Your task to perform on an android device: turn pop-ups off in chrome Image 0: 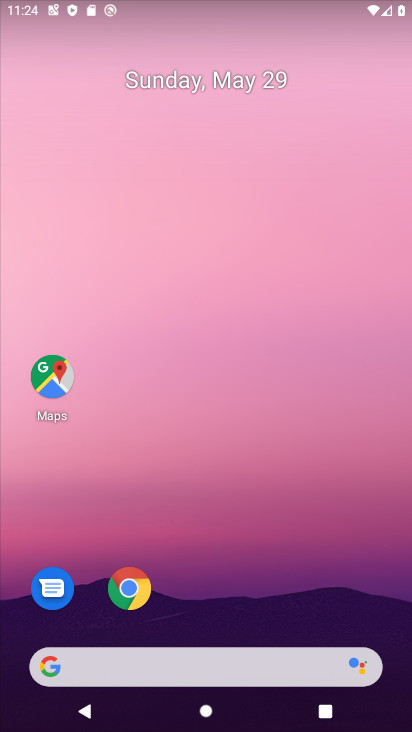
Step 0: drag from (333, 613) to (412, 148)
Your task to perform on an android device: turn pop-ups off in chrome Image 1: 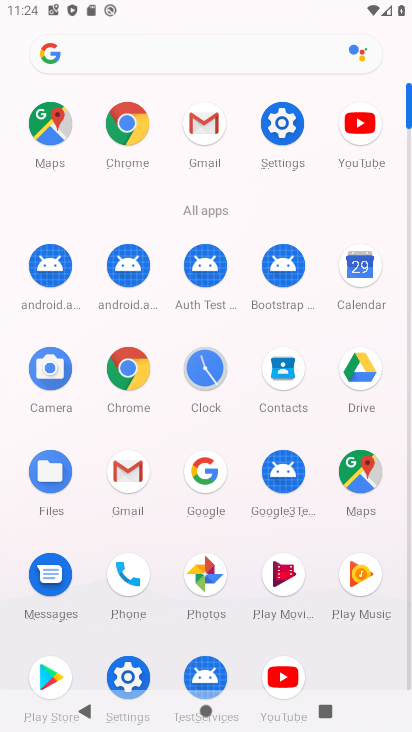
Step 1: click (132, 131)
Your task to perform on an android device: turn pop-ups off in chrome Image 2: 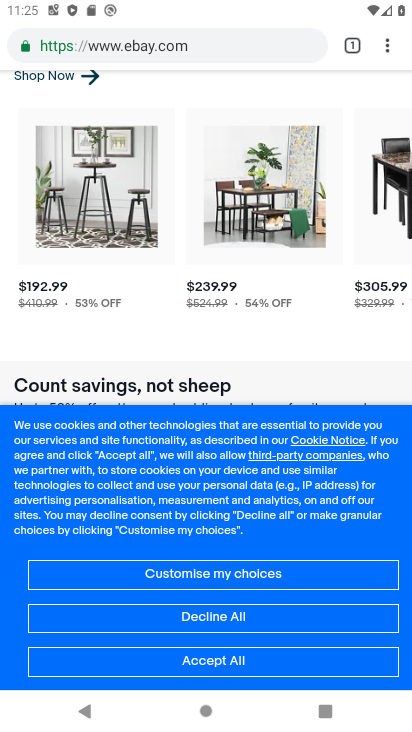
Step 2: drag from (387, 50) to (227, 551)
Your task to perform on an android device: turn pop-ups off in chrome Image 3: 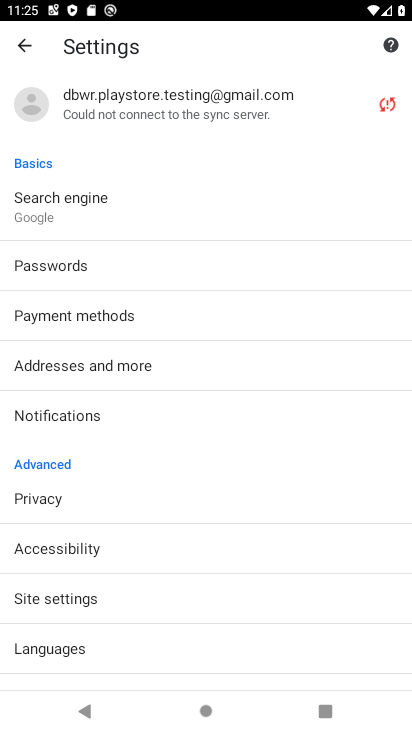
Step 3: click (110, 602)
Your task to perform on an android device: turn pop-ups off in chrome Image 4: 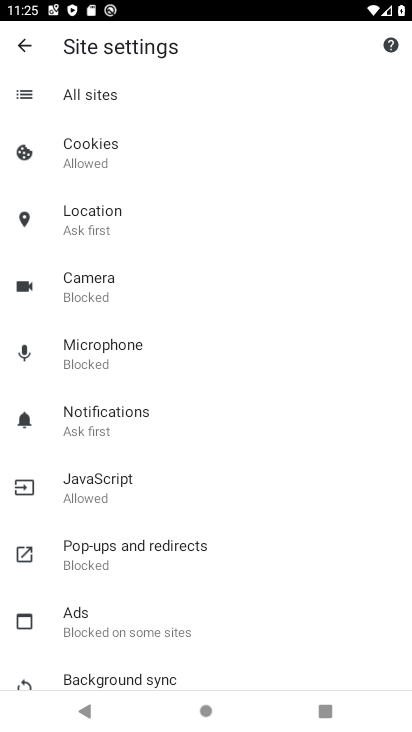
Step 4: click (124, 553)
Your task to perform on an android device: turn pop-ups off in chrome Image 5: 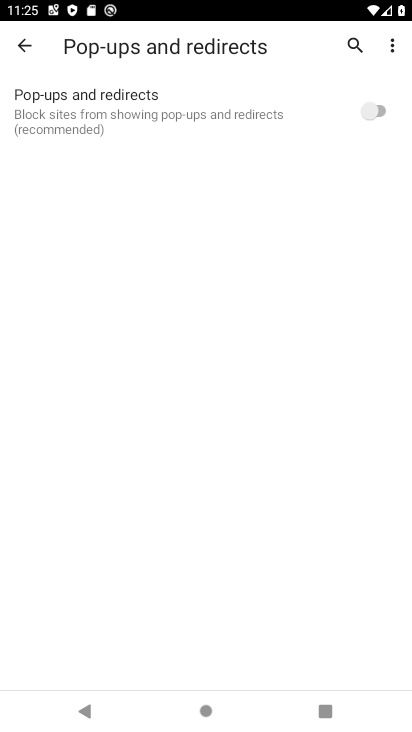
Step 5: task complete